Your task to perform on an android device: Add jbl flip 4 to the cart on newegg.com, then select checkout. Image 0: 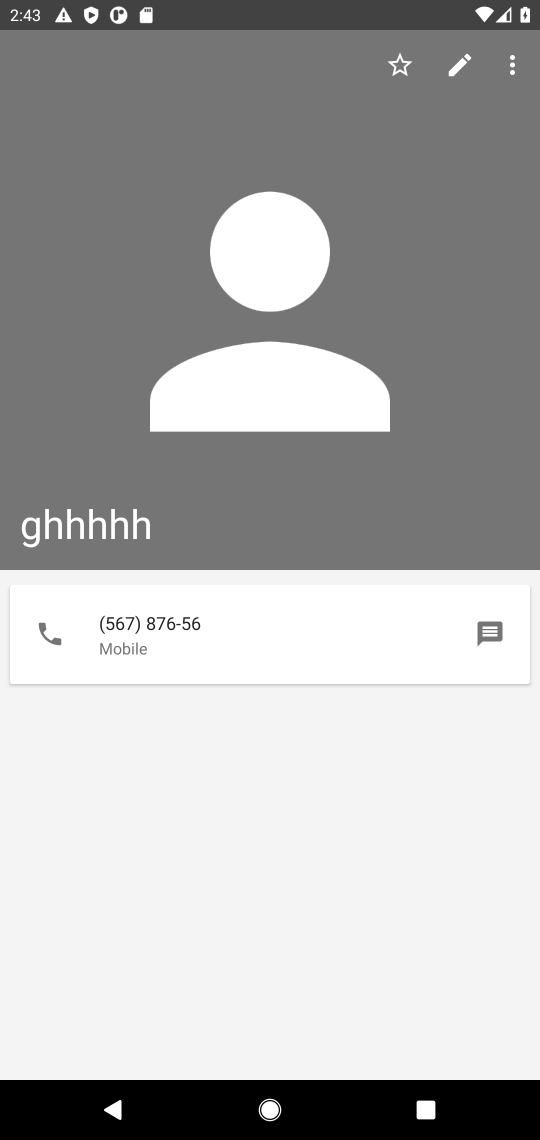
Step 0: press home button
Your task to perform on an android device: Add jbl flip 4 to the cart on newegg.com, then select checkout. Image 1: 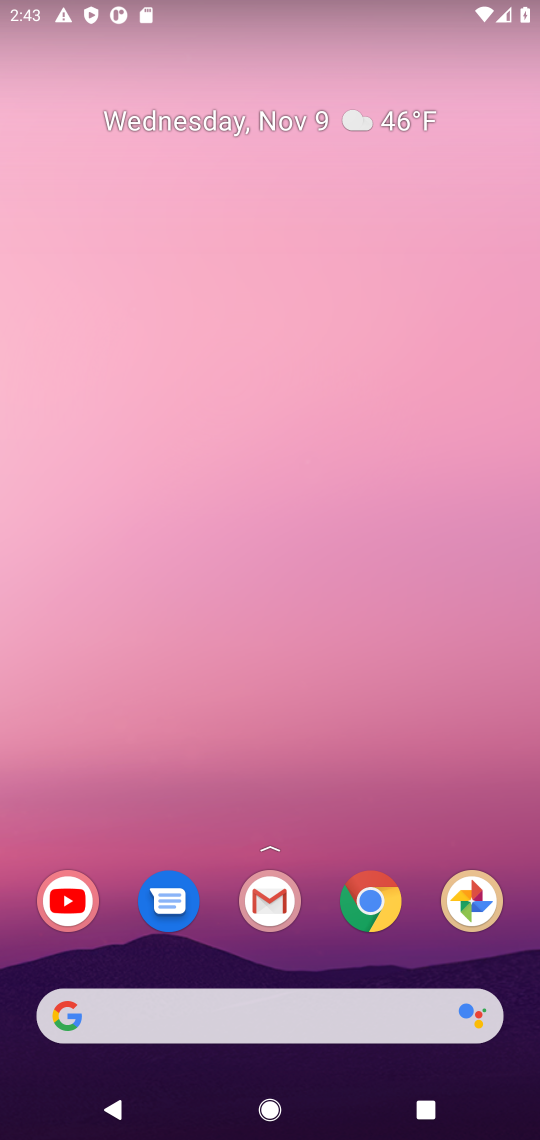
Step 1: click (372, 909)
Your task to perform on an android device: Add jbl flip 4 to the cart on newegg.com, then select checkout. Image 2: 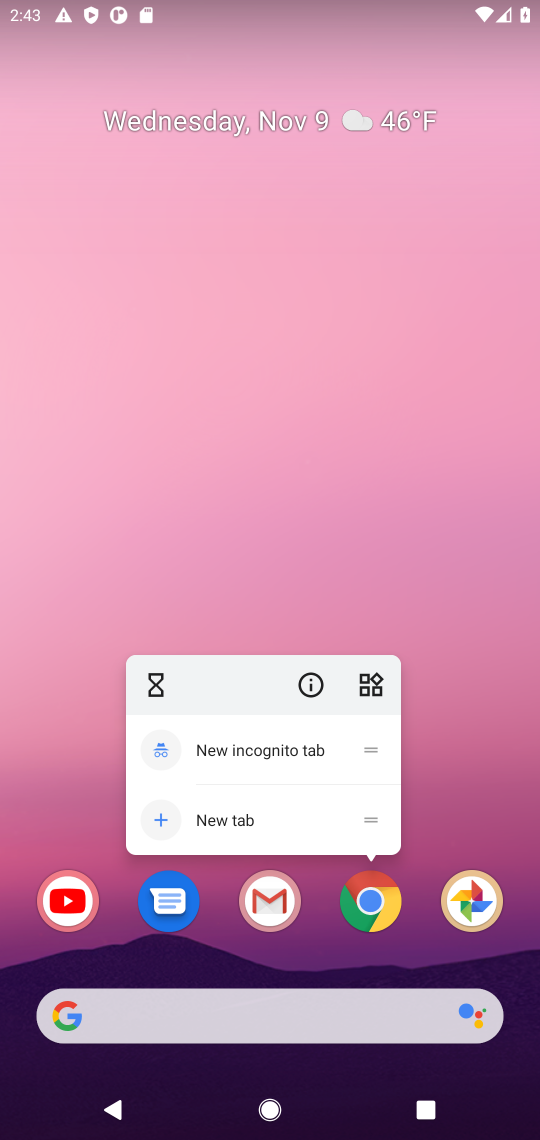
Step 2: click (387, 922)
Your task to perform on an android device: Add jbl flip 4 to the cart on newegg.com, then select checkout. Image 3: 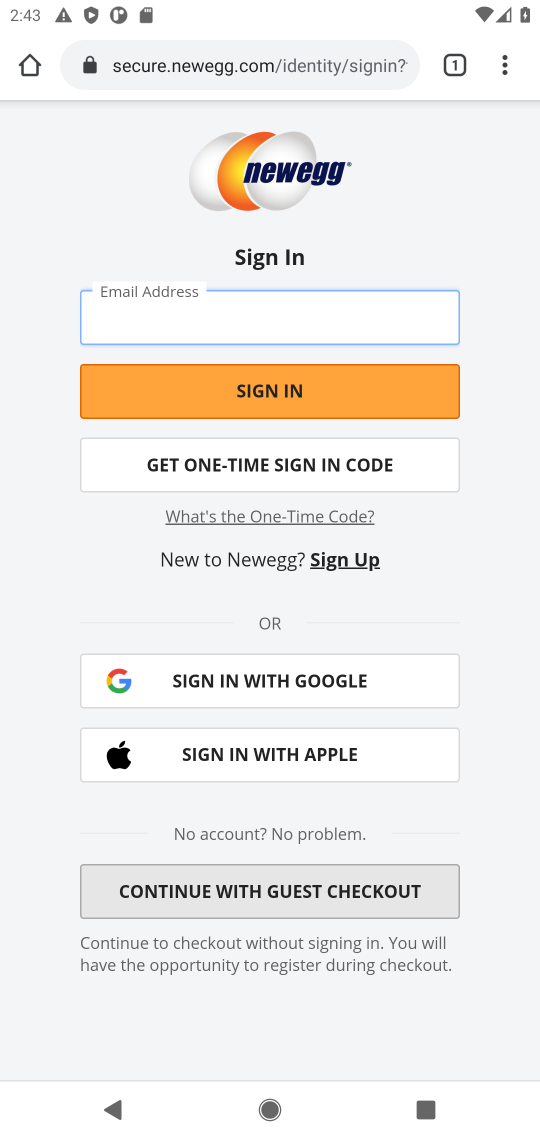
Step 3: click (265, 71)
Your task to perform on an android device: Add jbl flip 4 to the cart on newegg.com, then select checkout. Image 4: 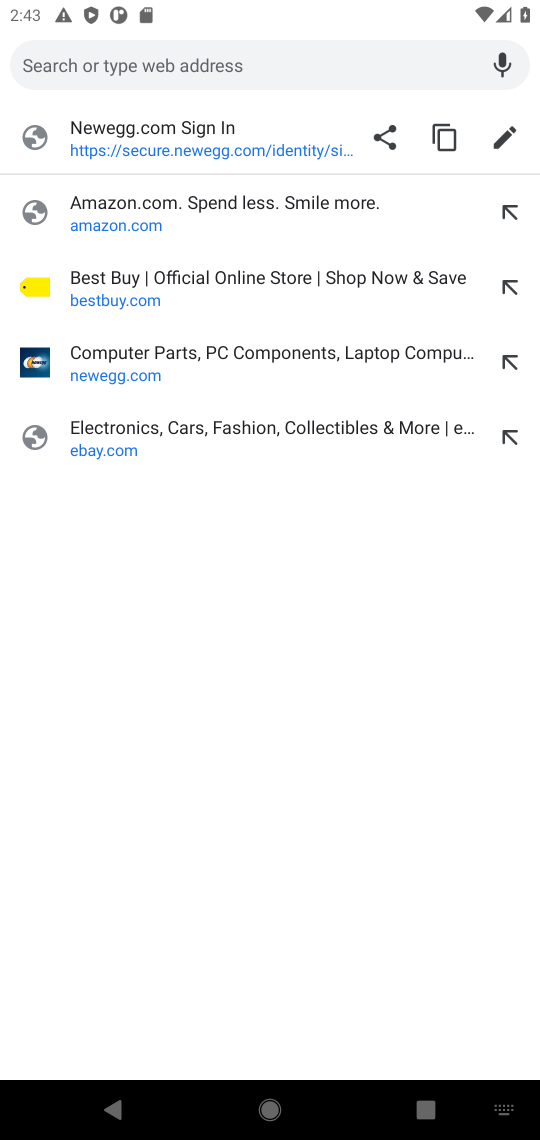
Step 4: click (387, 370)
Your task to perform on an android device: Add jbl flip 4 to the cart on newegg.com, then select checkout. Image 5: 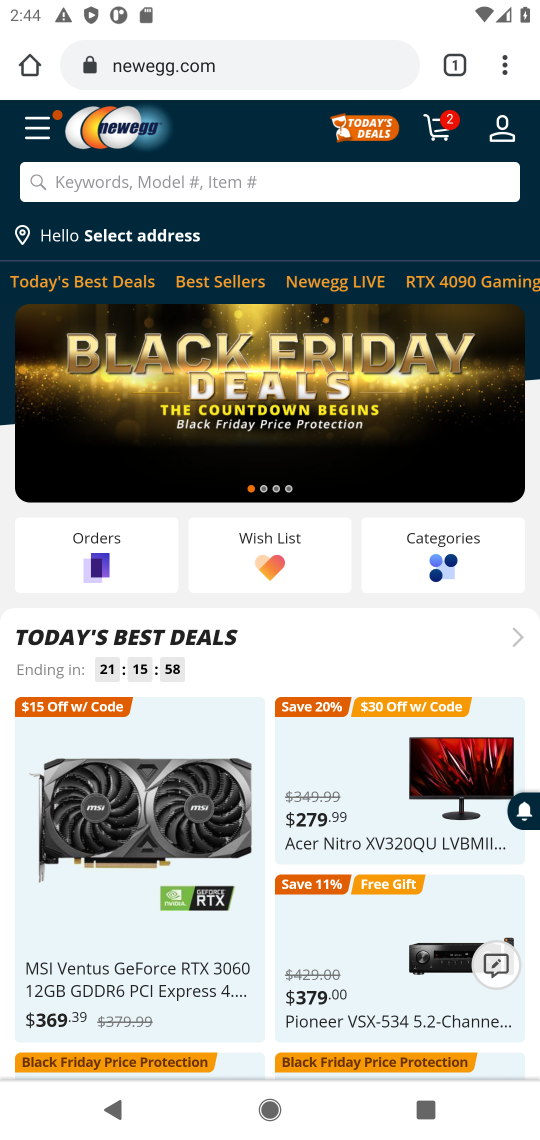
Step 5: click (449, 174)
Your task to perform on an android device: Add jbl flip 4 to the cart on newegg.com, then select checkout. Image 6: 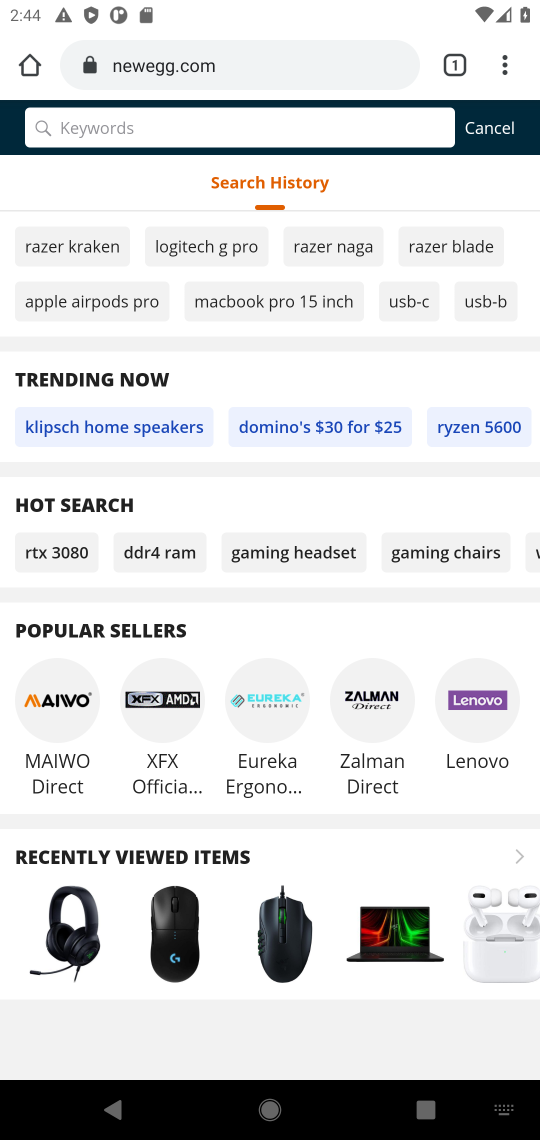
Step 6: type " jbl flip 4"
Your task to perform on an android device: Add jbl flip 4 to the cart on newegg.com, then select checkout. Image 7: 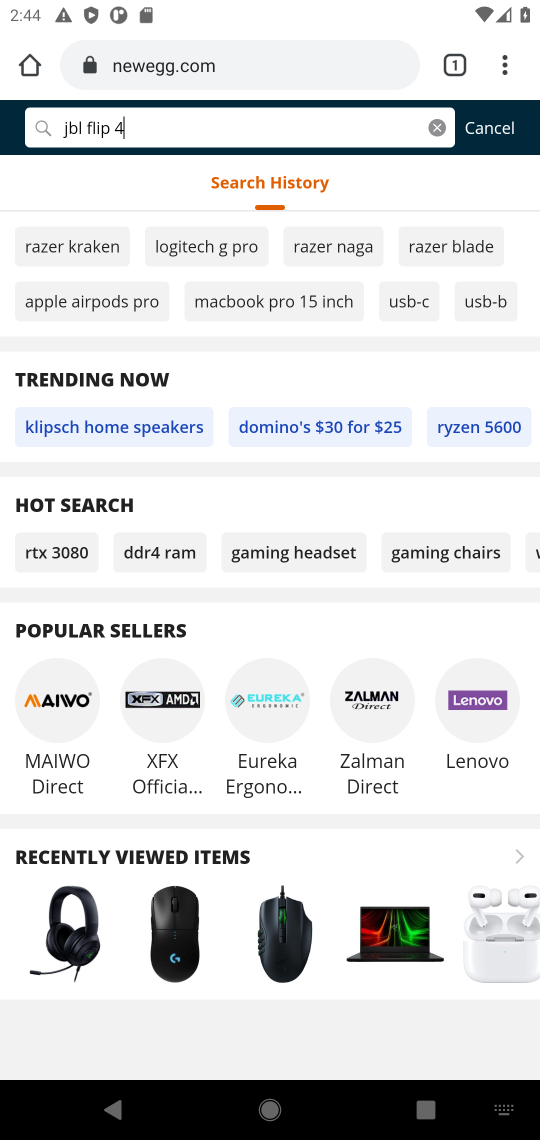
Step 7: press enter
Your task to perform on an android device: Add jbl flip 4 to the cart on newegg.com, then select checkout. Image 8: 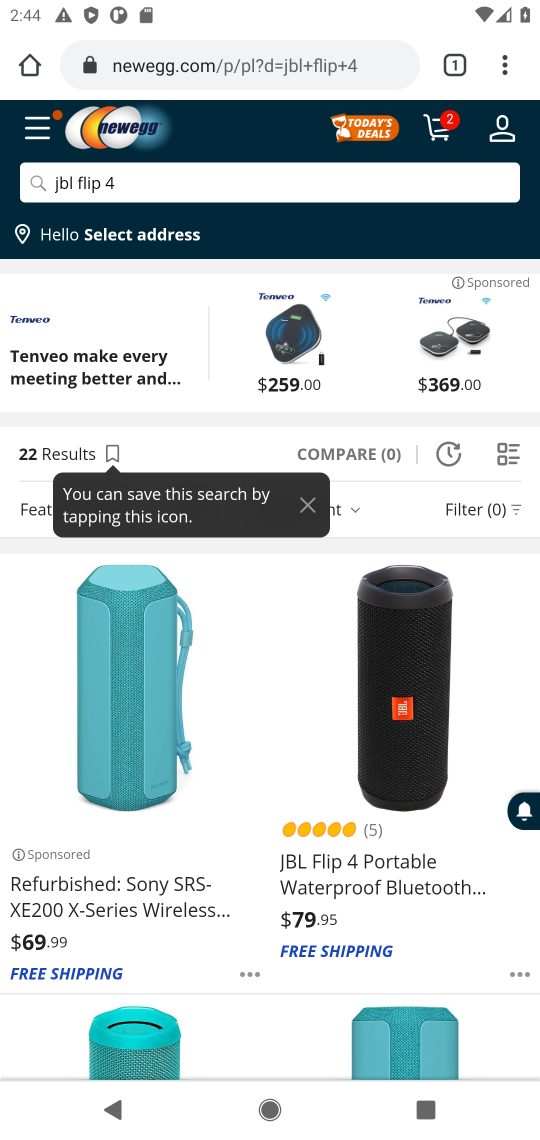
Step 8: click (365, 684)
Your task to perform on an android device: Add jbl flip 4 to the cart on newegg.com, then select checkout. Image 9: 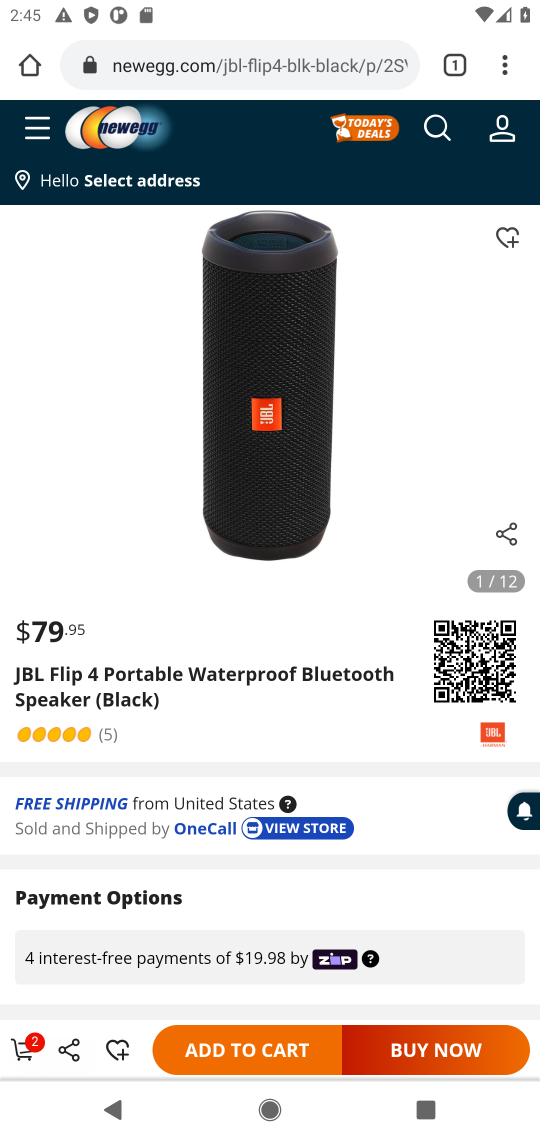
Step 9: drag from (498, 863) to (428, 705)
Your task to perform on an android device: Add jbl flip 4 to the cart on newegg.com, then select checkout. Image 10: 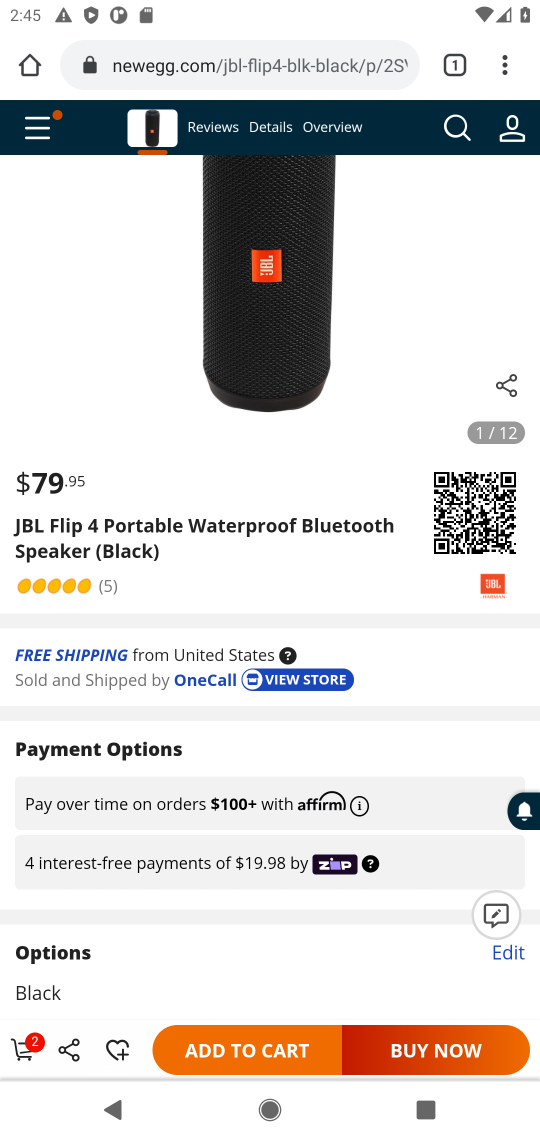
Step 10: click (282, 1037)
Your task to perform on an android device: Add jbl flip 4 to the cart on newegg.com, then select checkout. Image 11: 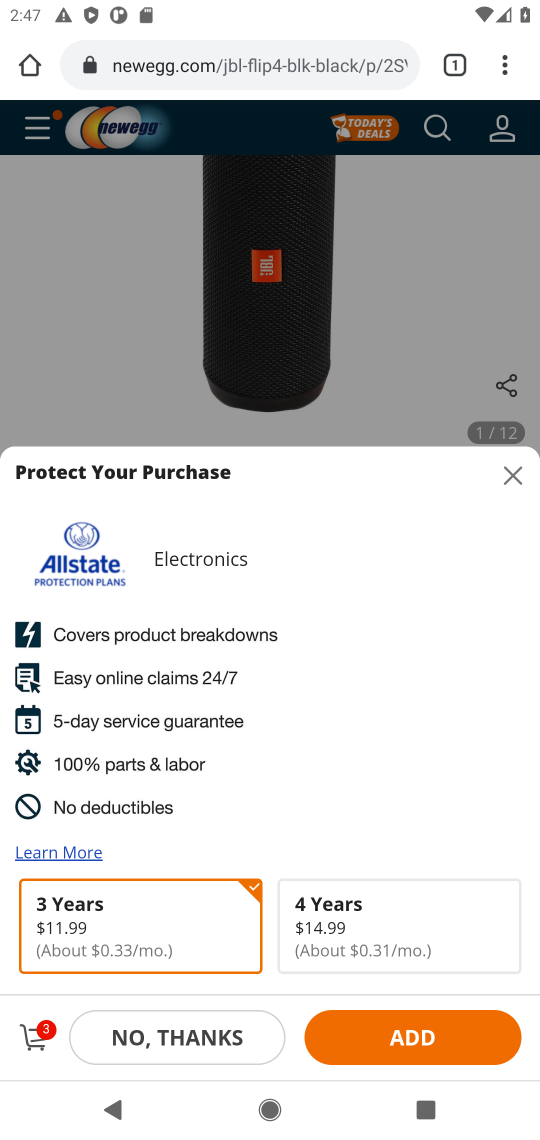
Step 11: click (521, 481)
Your task to perform on an android device: Add jbl flip 4 to the cart on newegg.com, then select checkout. Image 12: 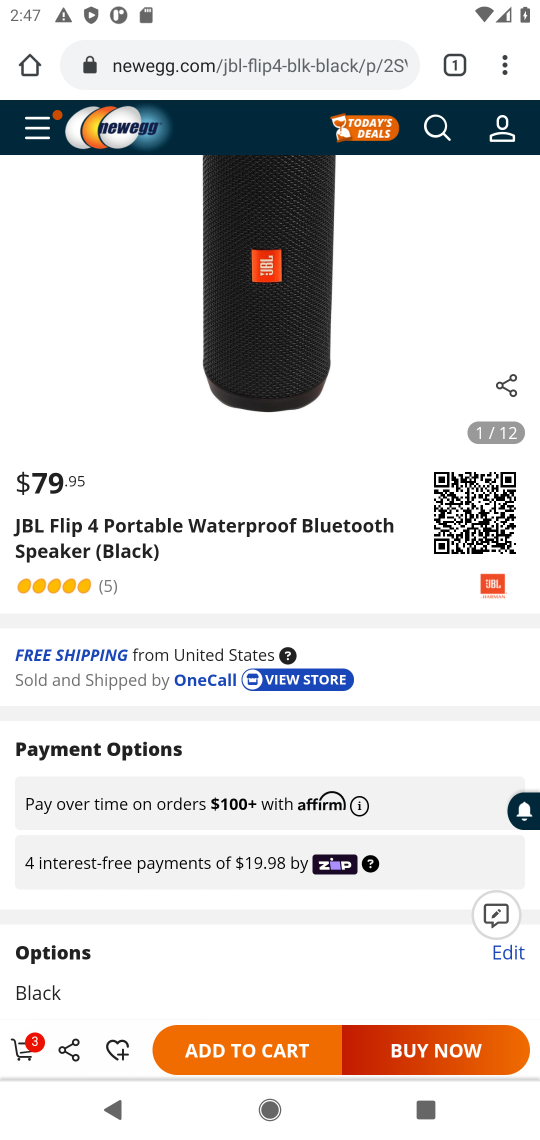
Step 12: click (29, 1042)
Your task to perform on an android device: Add jbl flip 4 to the cart on newegg.com, then select checkout. Image 13: 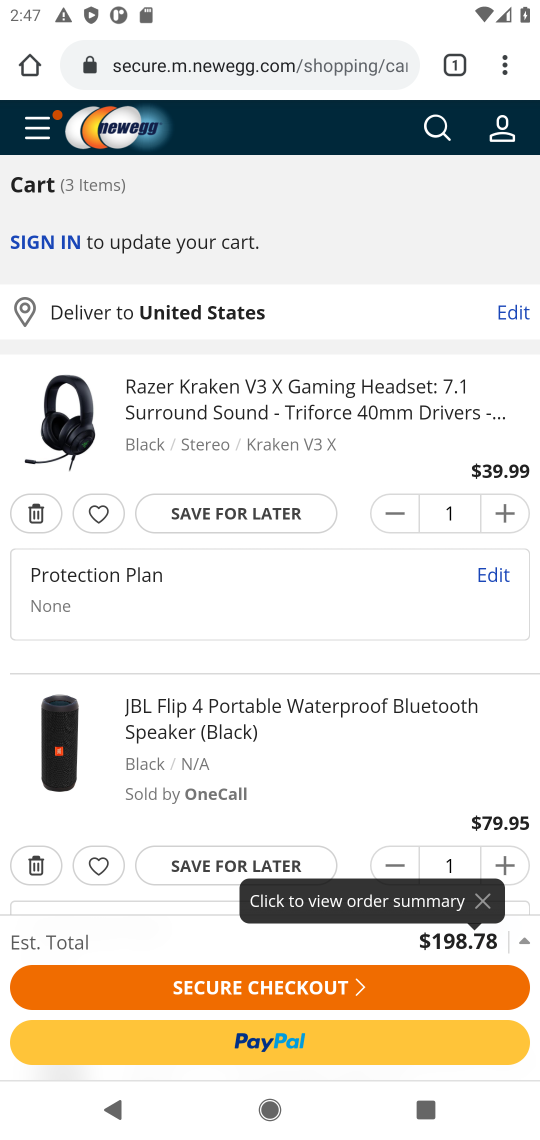
Step 13: click (249, 979)
Your task to perform on an android device: Add jbl flip 4 to the cart on newegg.com, then select checkout. Image 14: 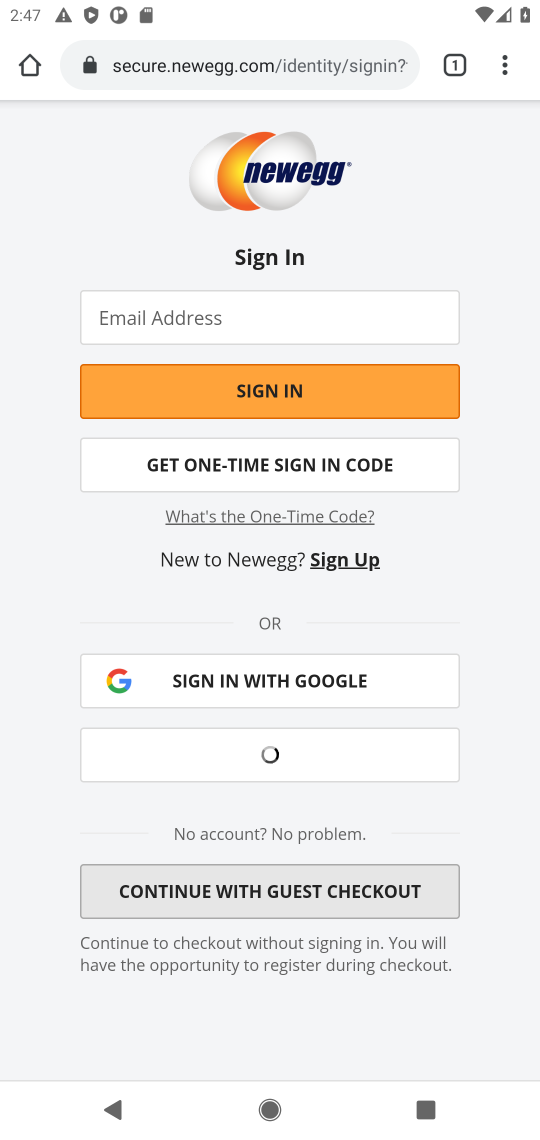
Step 14: task complete